Your task to perform on an android device: Do I have any events tomorrow? Image 0: 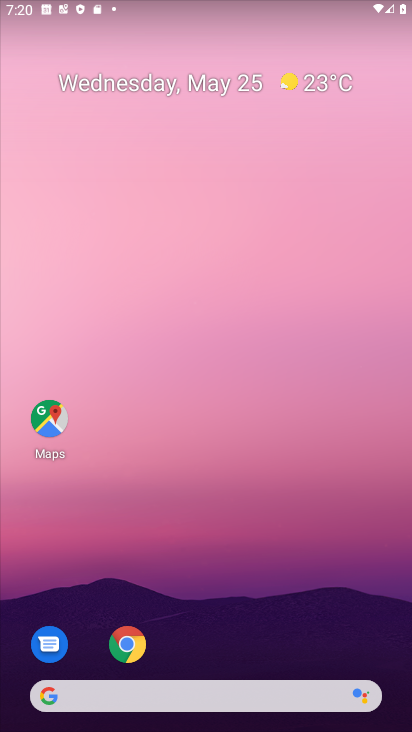
Step 0: drag from (267, 704) to (202, 157)
Your task to perform on an android device: Do I have any events tomorrow? Image 1: 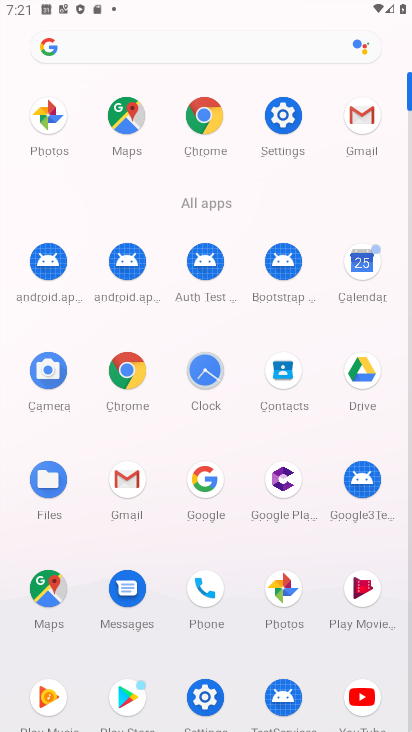
Step 1: click (372, 265)
Your task to perform on an android device: Do I have any events tomorrow? Image 2: 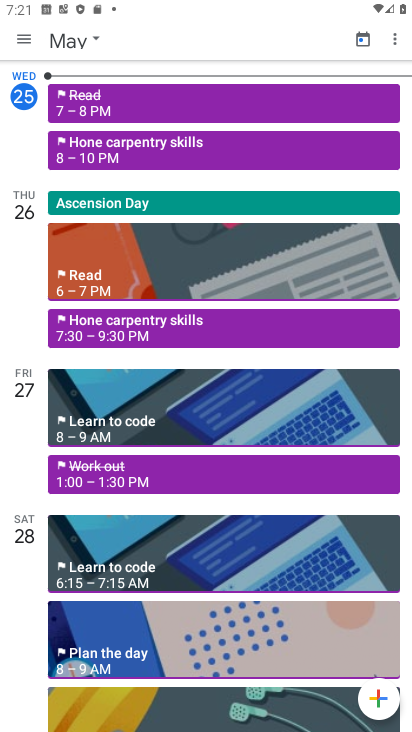
Step 2: click (33, 30)
Your task to perform on an android device: Do I have any events tomorrow? Image 3: 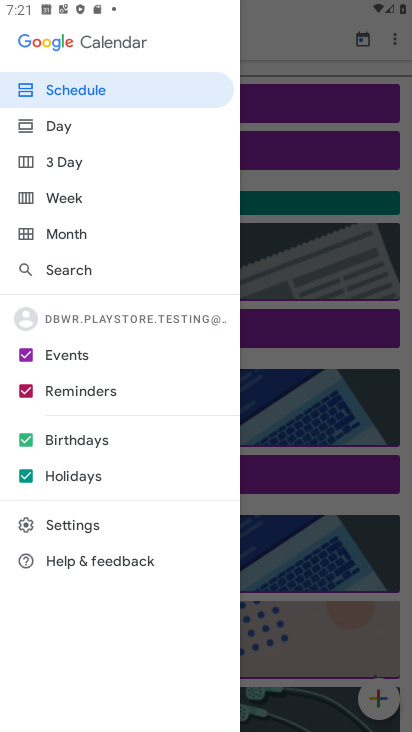
Step 3: click (89, 85)
Your task to perform on an android device: Do I have any events tomorrow? Image 4: 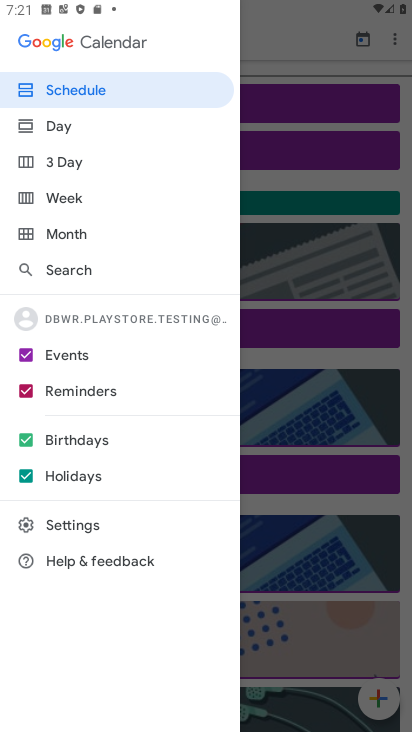
Step 4: click (86, 83)
Your task to perform on an android device: Do I have any events tomorrow? Image 5: 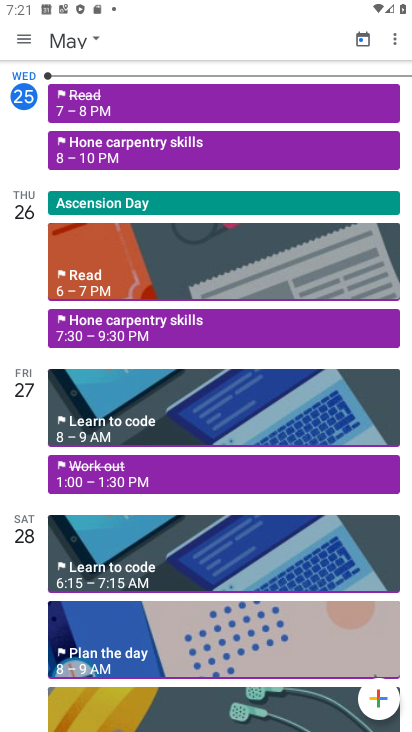
Step 5: task complete